Your task to perform on an android device: Open the map Image 0: 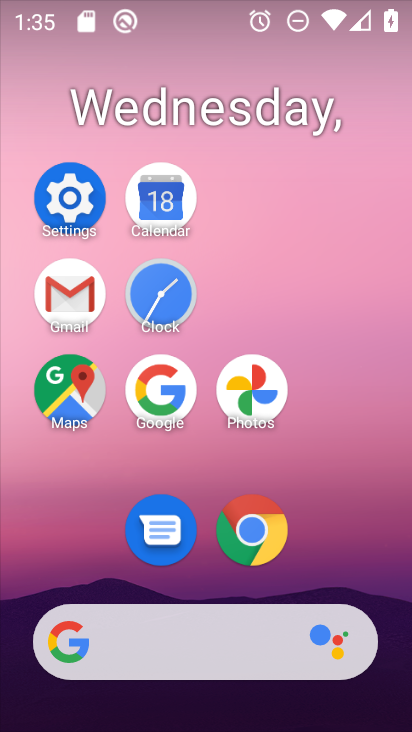
Step 0: click (63, 383)
Your task to perform on an android device: Open the map Image 1: 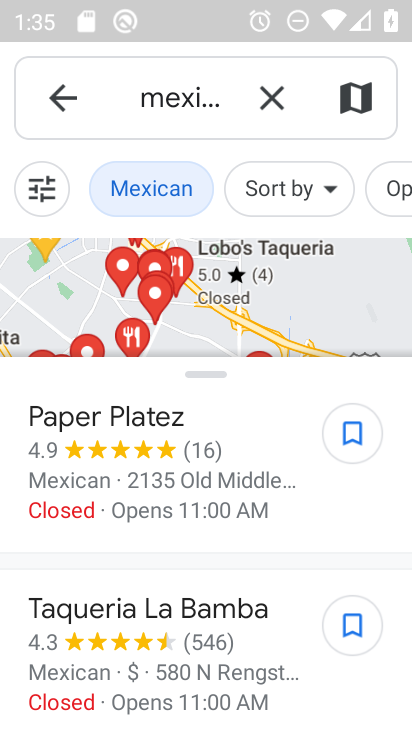
Step 1: task complete